Your task to perform on an android device: change timer sound Image 0: 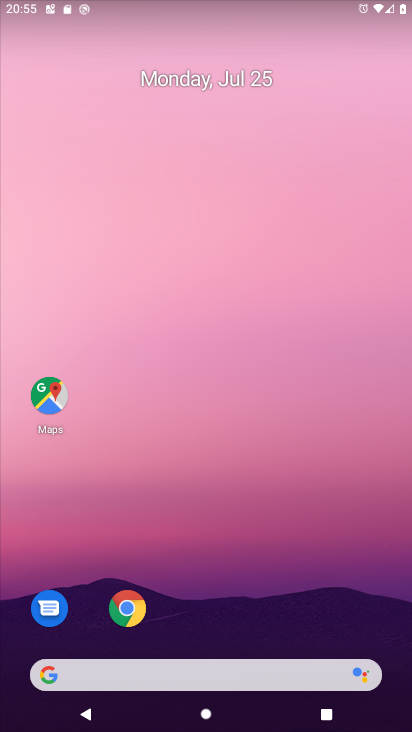
Step 0: drag from (275, 594) to (242, 130)
Your task to perform on an android device: change timer sound Image 1: 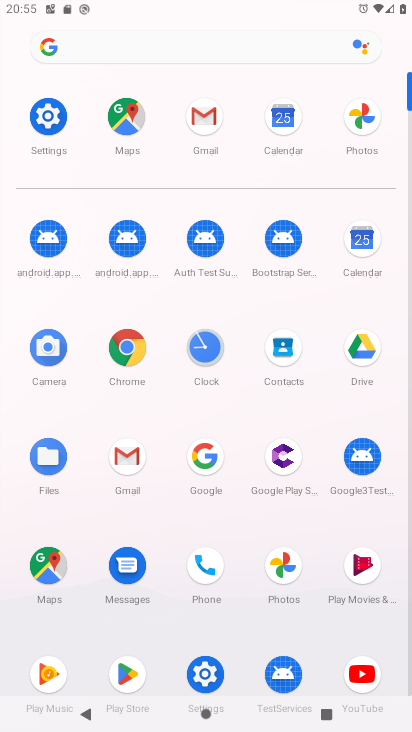
Step 1: click (215, 355)
Your task to perform on an android device: change timer sound Image 2: 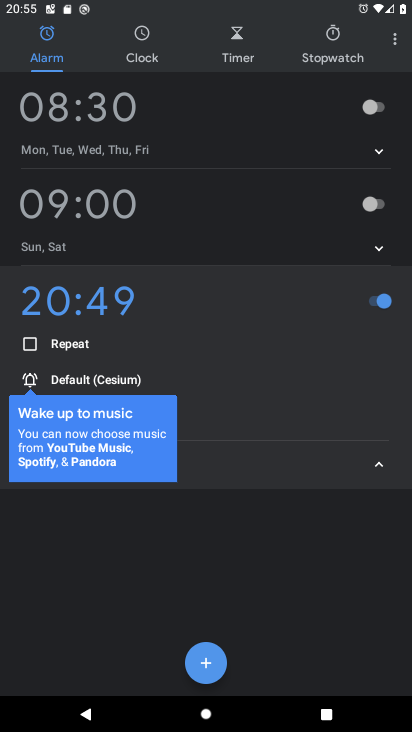
Step 2: click (399, 28)
Your task to perform on an android device: change timer sound Image 3: 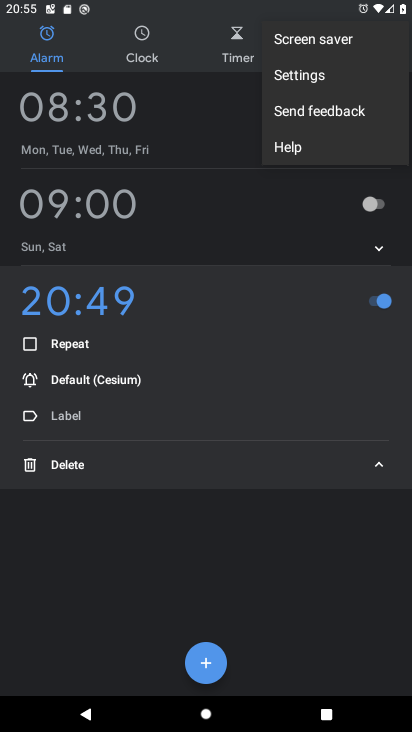
Step 3: click (330, 79)
Your task to perform on an android device: change timer sound Image 4: 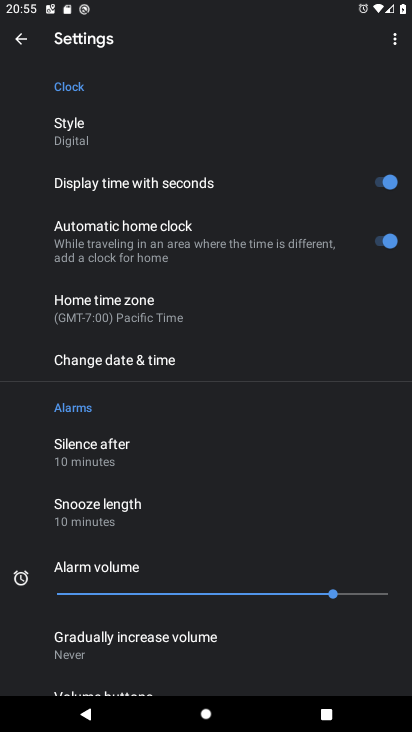
Step 4: drag from (101, 637) to (120, 382)
Your task to perform on an android device: change timer sound Image 5: 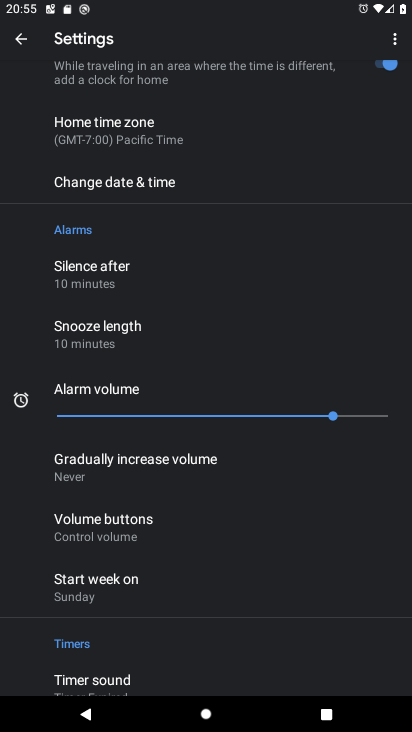
Step 5: click (124, 678)
Your task to perform on an android device: change timer sound Image 6: 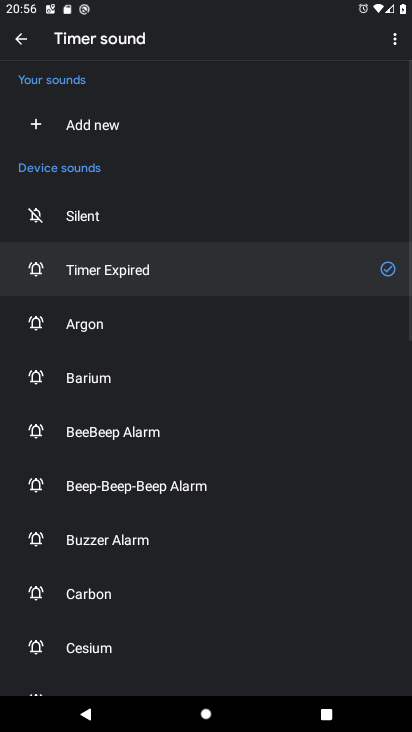
Step 6: click (112, 320)
Your task to perform on an android device: change timer sound Image 7: 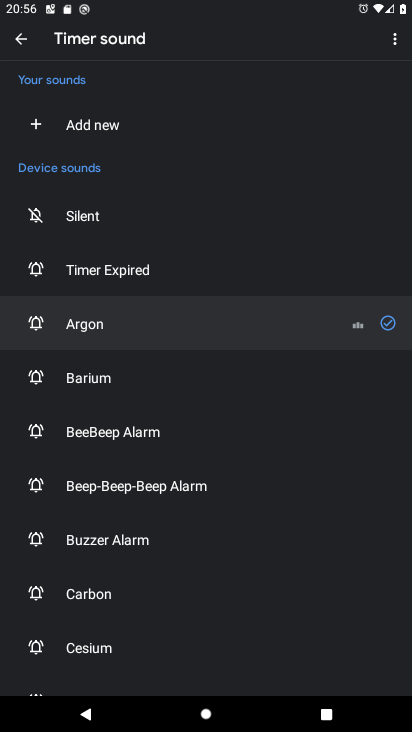
Step 7: task complete